Your task to perform on an android device: Clear the shopping cart on amazon. Image 0: 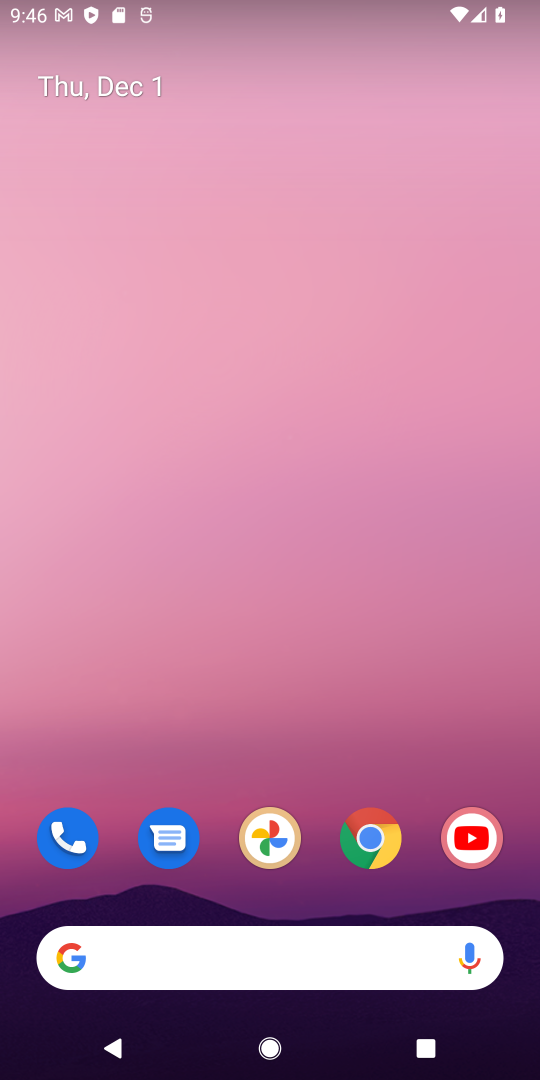
Step 0: drag from (289, 937) to (276, 263)
Your task to perform on an android device: Clear the shopping cart on amazon. Image 1: 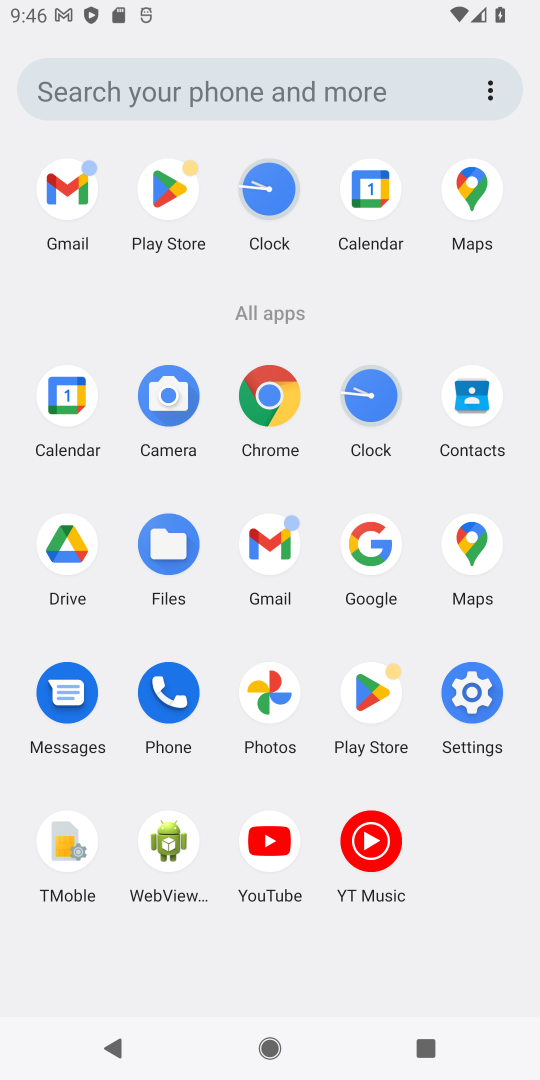
Step 1: click (375, 557)
Your task to perform on an android device: Clear the shopping cart on amazon. Image 2: 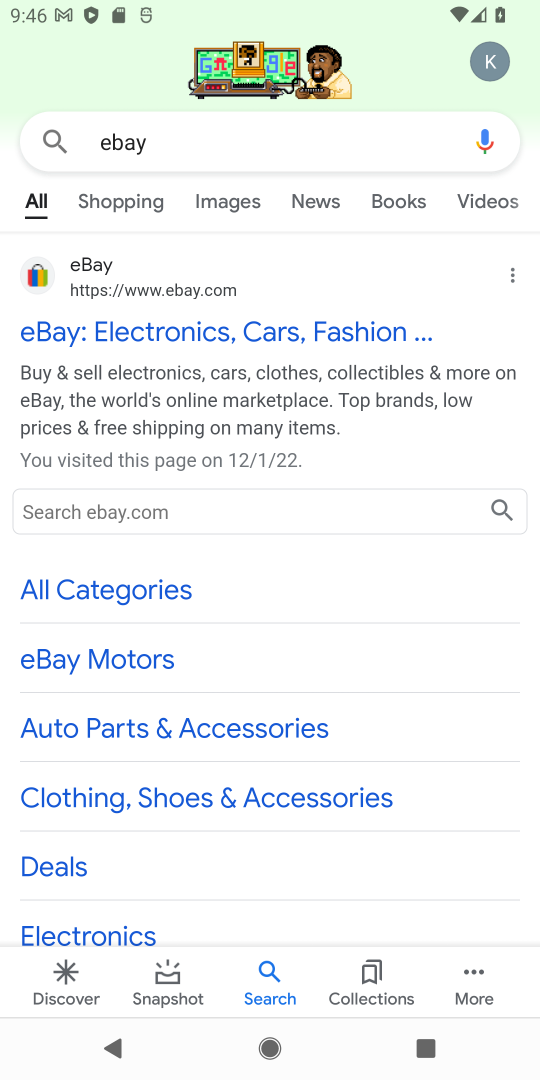
Step 2: click (165, 138)
Your task to perform on an android device: Clear the shopping cart on amazon. Image 3: 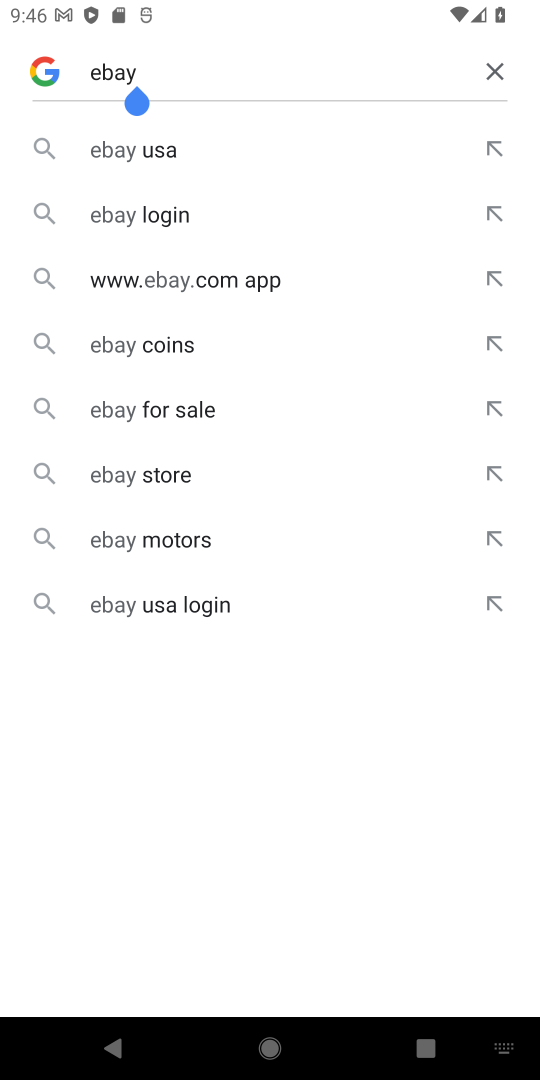
Step 3: click (481, 69)
Your task to perform on an android device: Clear the shopping cart on amazon. Image 4: 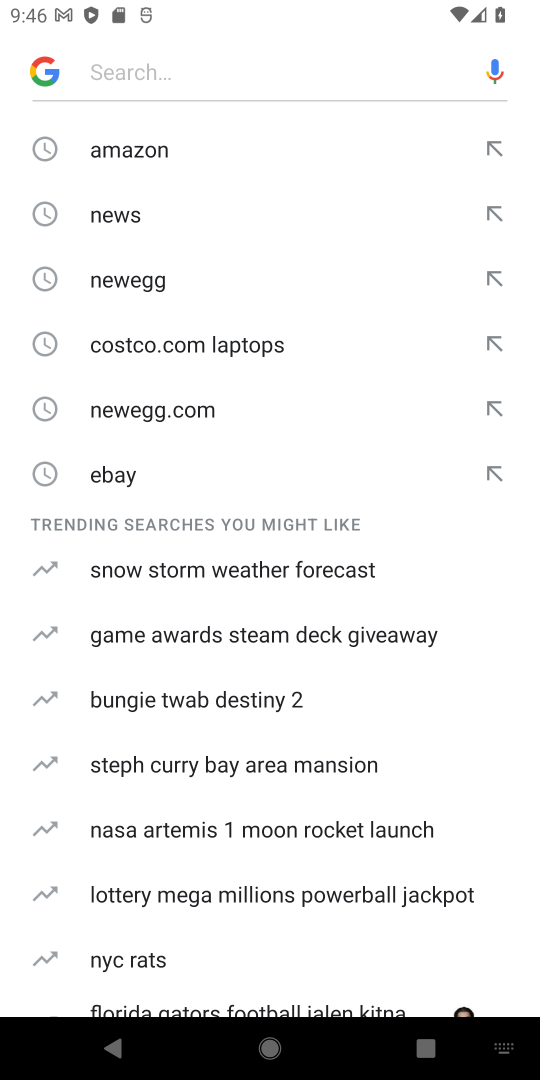
Step 4: click (112, 143)
Your task to perform on an android device: Clear the shopping cart on amazon. Image 5: 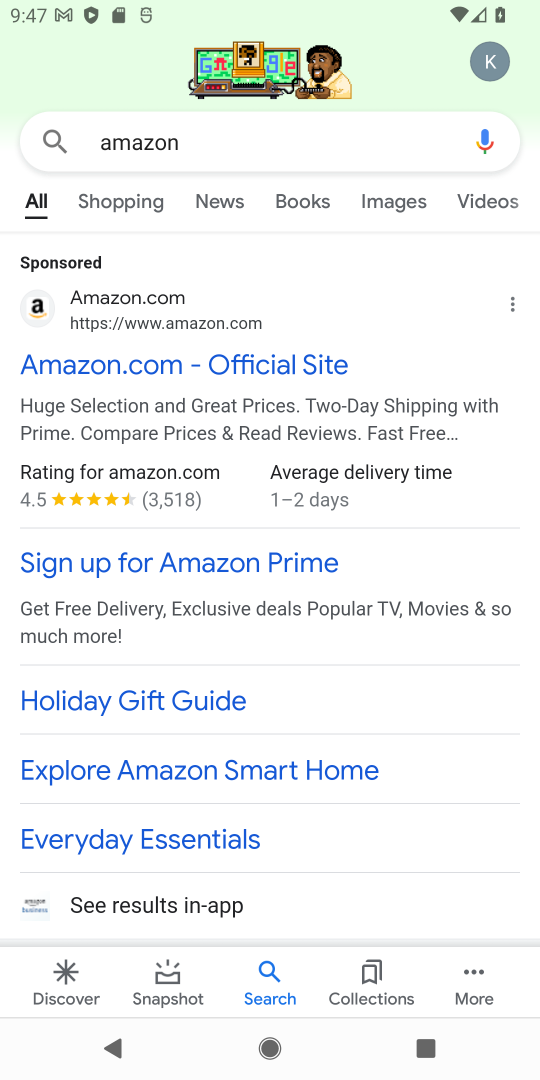
Step 5: click (211, 358)
Your task to perform on an android device: Clear the shopping cart on amazon. Image 6: 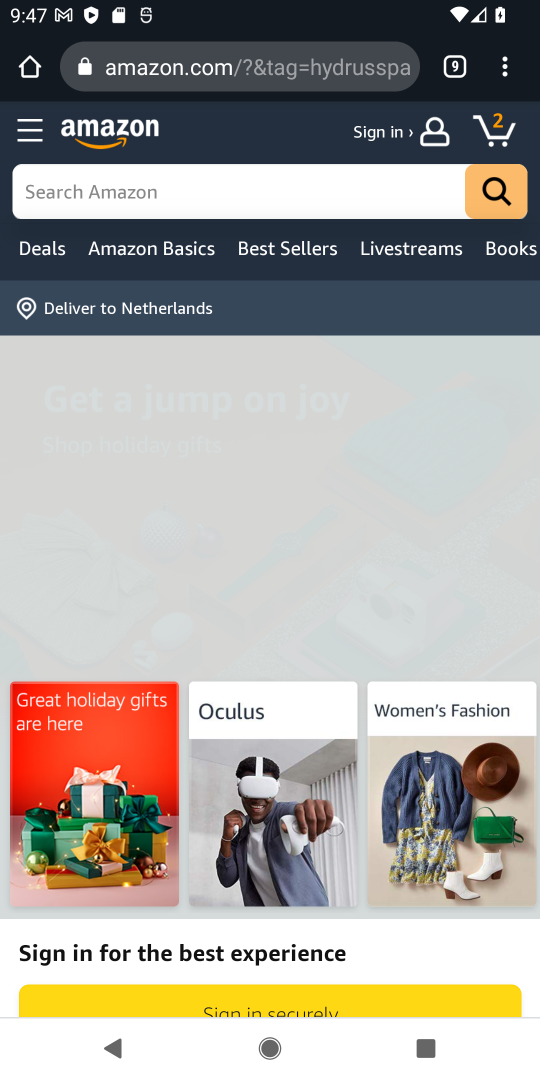
Step 6: click (492, 129)
Your task to perform on an android device: Clear the shopping cart on amazon. Image 7: 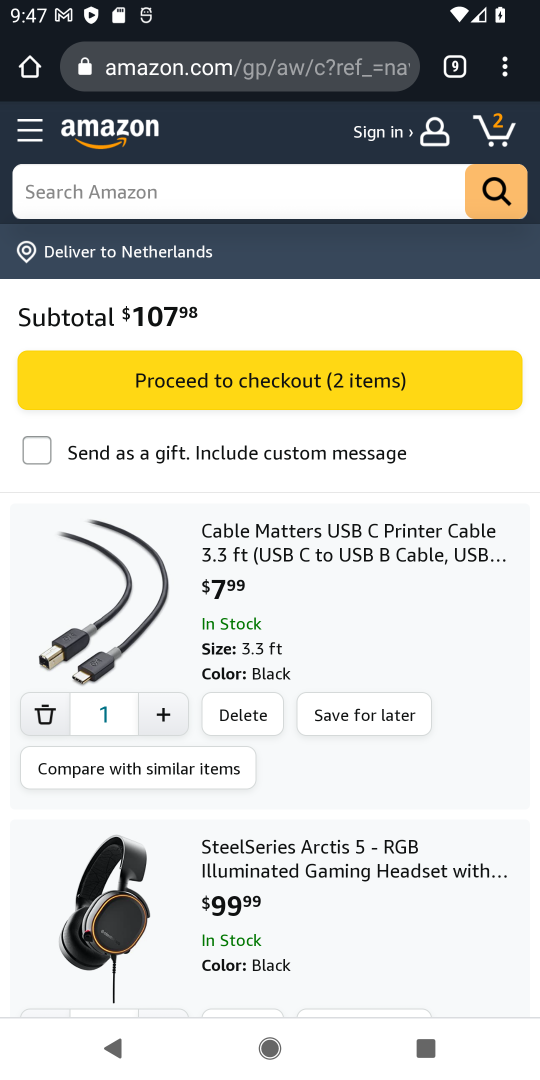
Step 7: click (250, 714)
Your task to perform on an android device: Clear the shopping cart on amazon. Image 8: 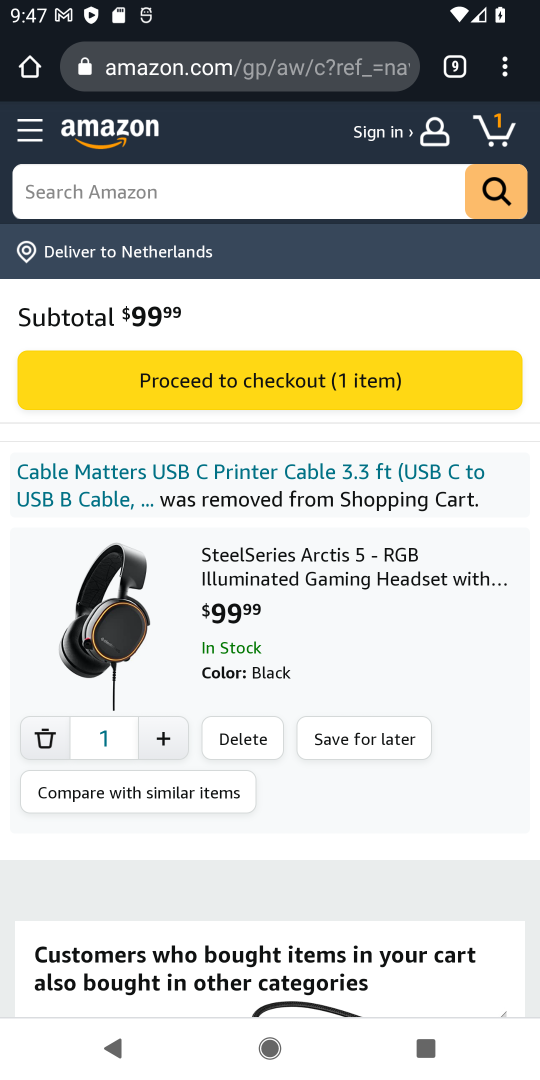
Step 8: click (247, 739)
Your task to perform on an android device: Clear the shopping cart on amazon. Image 9: 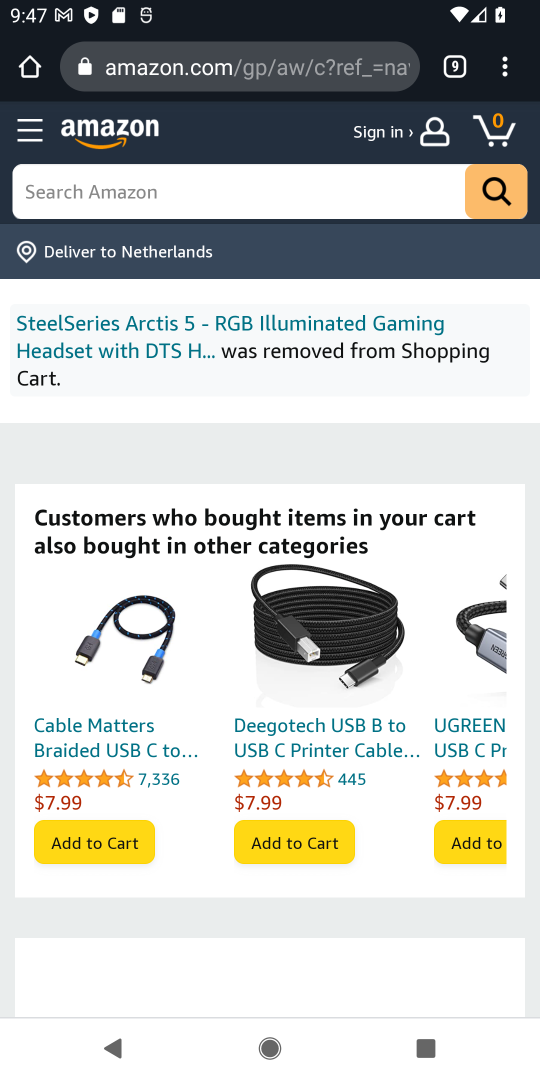
Step 9: task complete